Your task to perform on an android device: Open Maps and search for coffee Image 0: 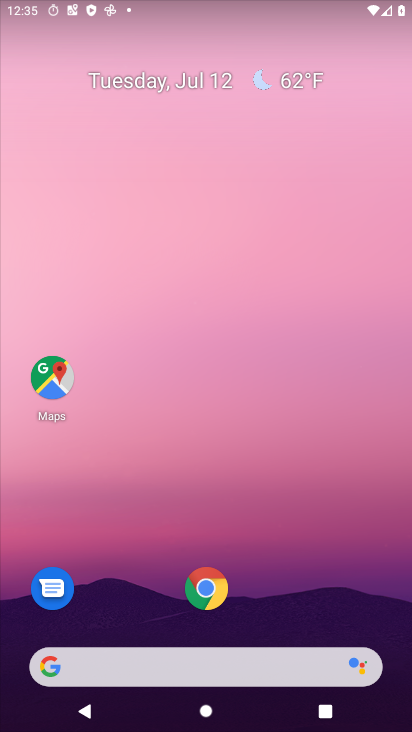
Step 0: click (47, 381)
Your task to perform on an android device: Open Maps and search for coffee Image 1: 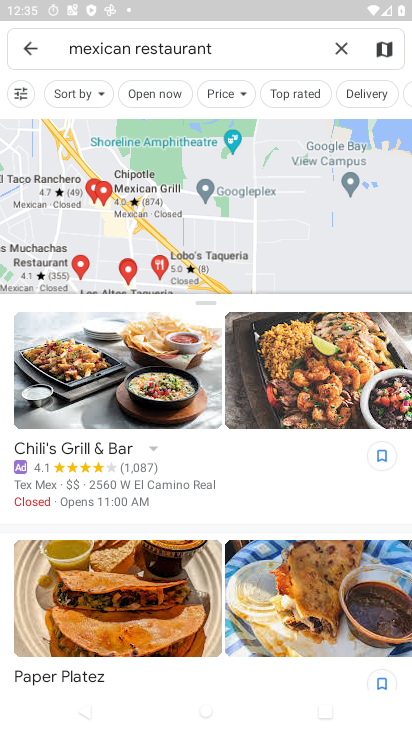
Step 1: click (339, 52)
Your task to perform on an android device: Open Maps and search for coffee Image 2: 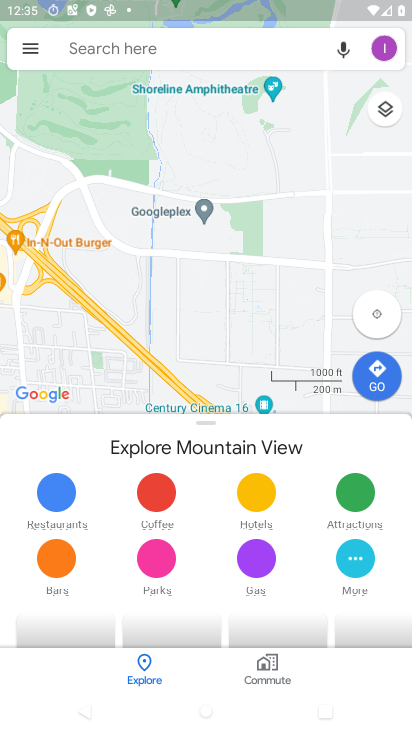
Step 2: click (241, 52)
Your task to perform on an android device: Open Maps and search for coffee Image 3: 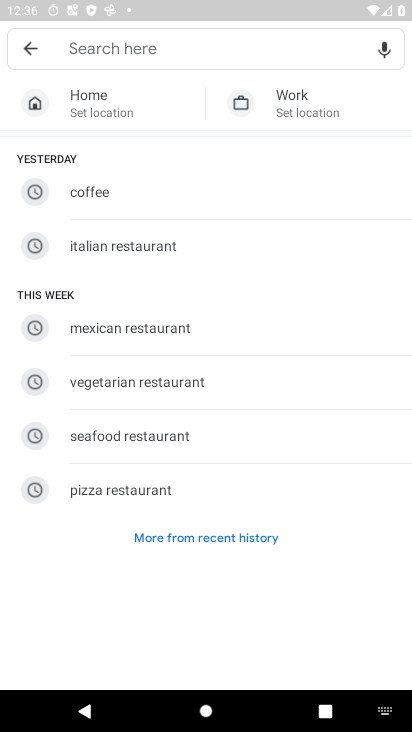
Step 3: click (103, 203)
Your task to perform on an android device: Open Maps and search for coffee Image 4: 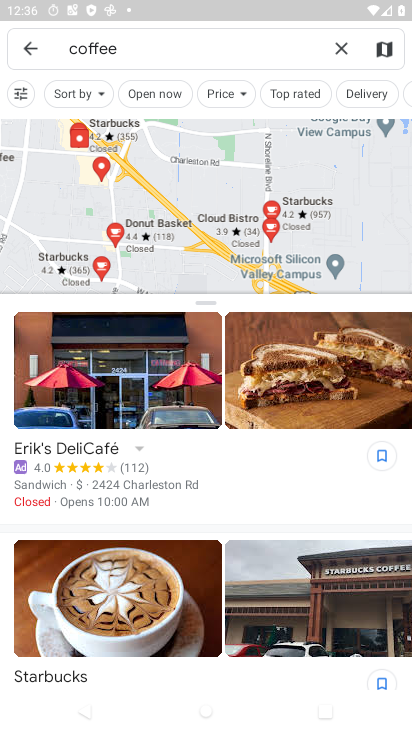
Step 4: task complete